Your task to perform on an android device: Open sound settings Image 0: 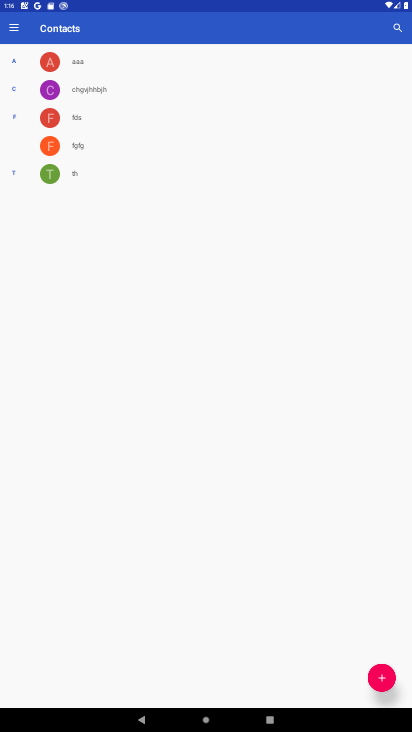
Step 0: drag from (292, 715) to (310, 529)
Your task to perform on an android device: Open sound settings Image 1: 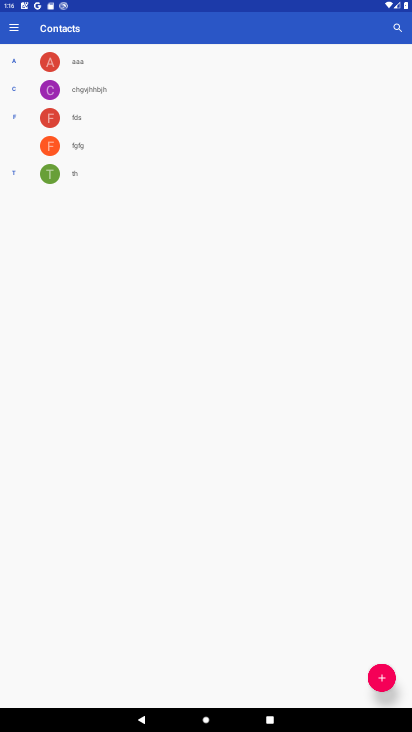
Step 1: press home button
Your task to perform on an android device: Open sound settings Image 2: 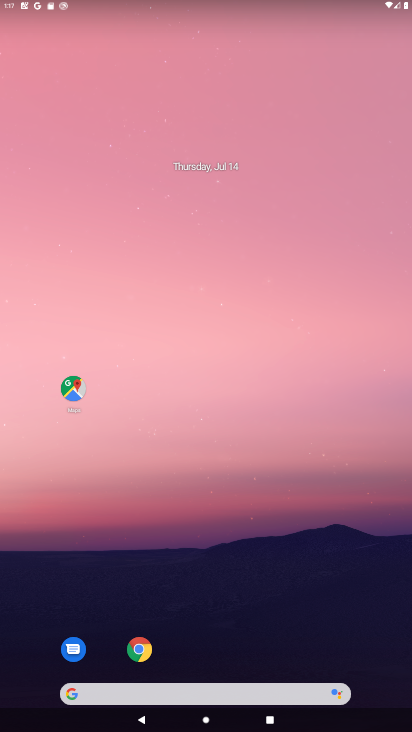
Step 2: drag from (293, 700) to (308, 29)
Your task to perform on an android device: Open sound settings Image 3: 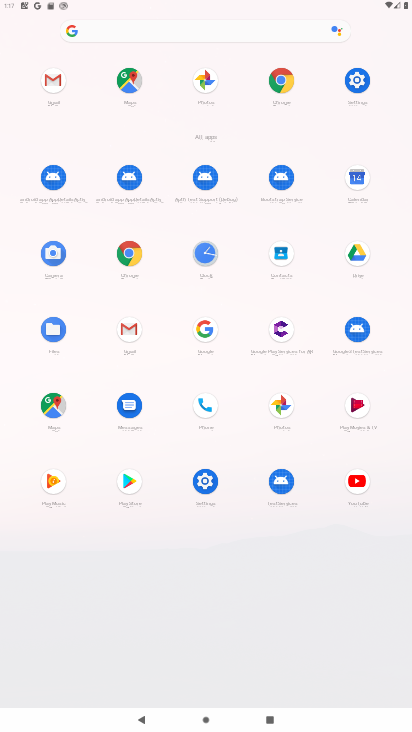
Step 3: click (353, 84)
Your task to perform on an android device: Open sound settings Image 4: 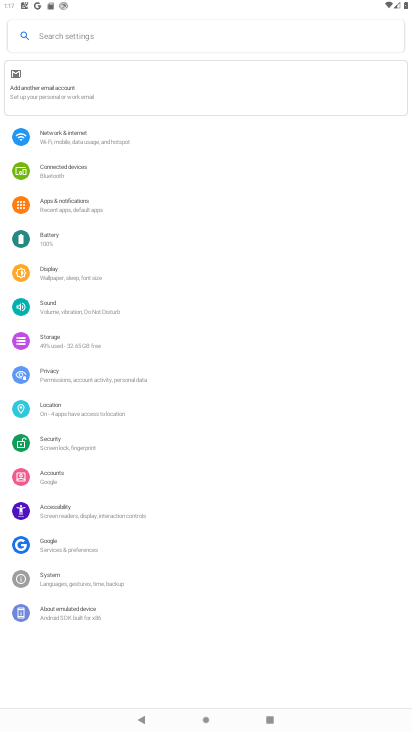
Step 4: click (78, 306)
Your task to perform on an android device: Open sound settings Image 5: 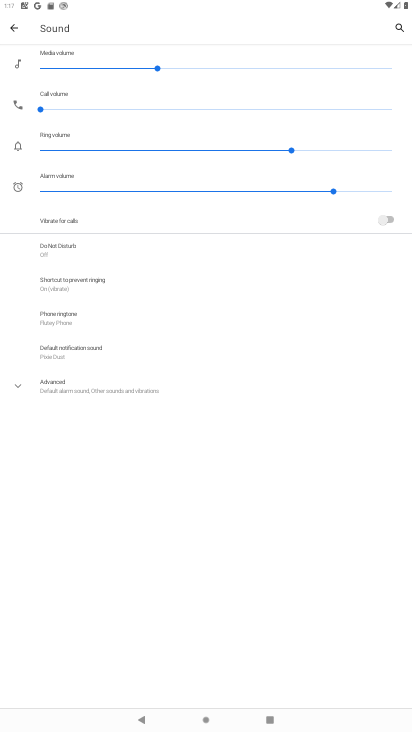
Step 5: task complete